Your task to perform on an android device: Go to Yahoo.com Image 0: 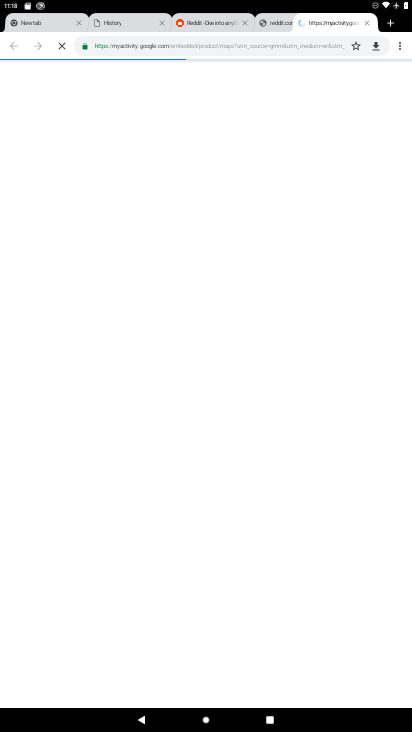
Step 0: press home button
Your task to perform on an android device: Go to Yahoo.com Image 1: 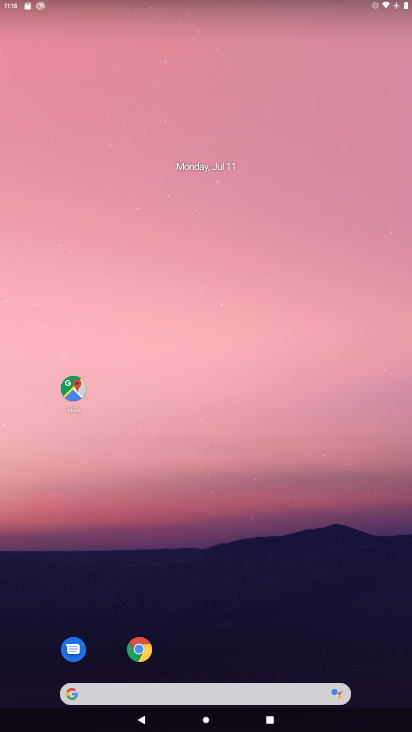
Step 1: drag from (253, 638) to (233, 165)
Your task to perform on an android device: Go to Yahoo.com Image 2: 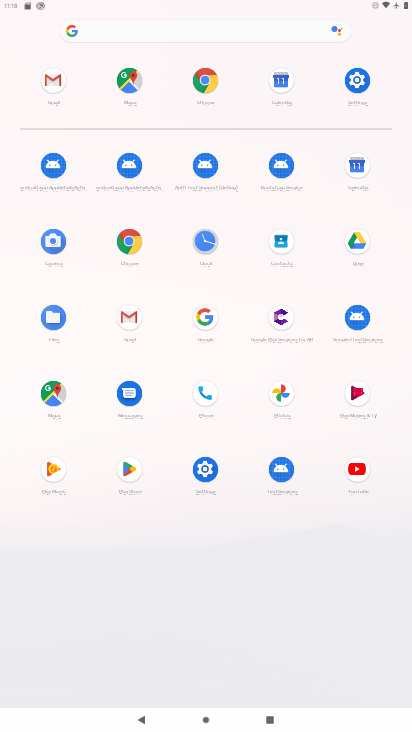
Step 2: click (207, 80)
Your task to perform on an android device: Go to Yahoo.com Image 3: 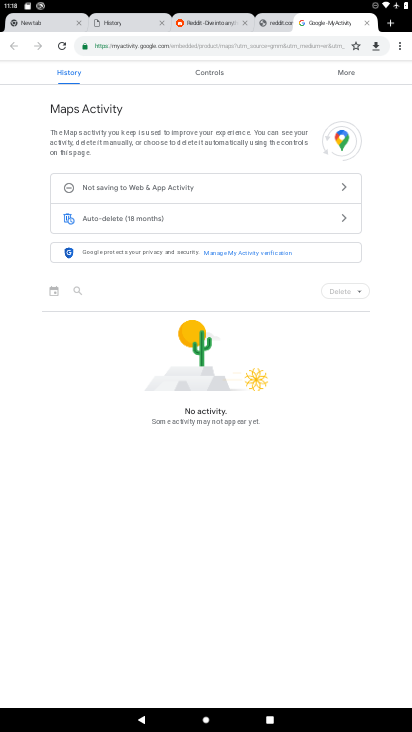
Step 3: click (193, 45)
Your task to perform on an android device: Go to Yahoo.com Image 4: 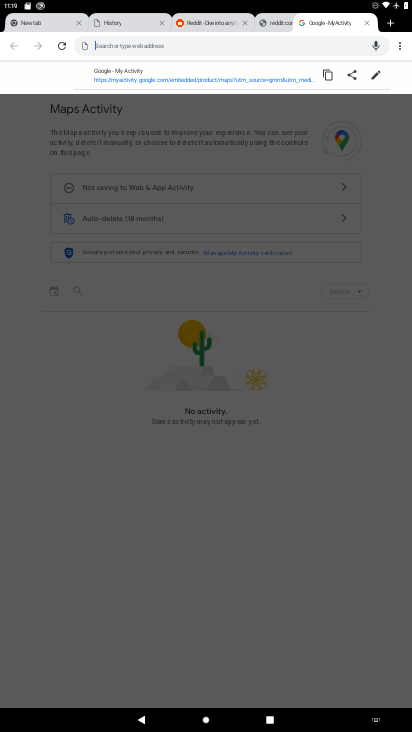
Step 4: type "yahoo.com"
Your task to perform on an android device: Go to Yahoo.com Image 5: 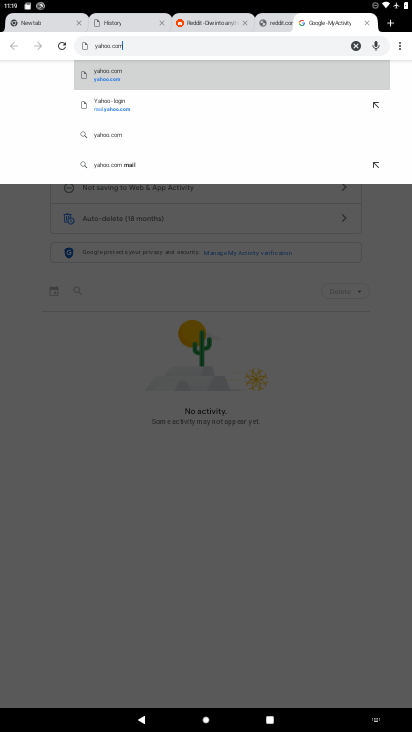
Step 5: click (111, 76)
Your task to perform on an android device: Go to Yahoo.com Image 6: 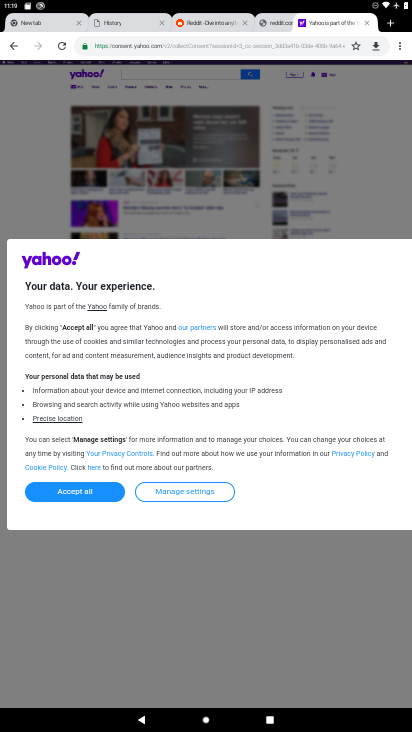
Step 6: task complete